Your task to perform on an android device: Go to ESPN.com Image 0: 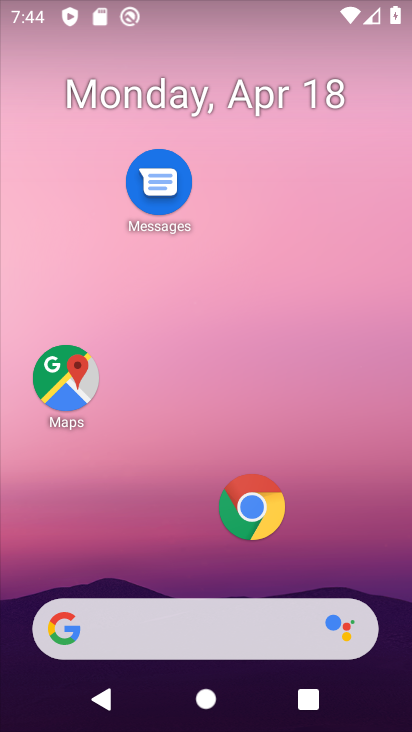
Step 0: click (241, 511)
Your task to perform on an android device: Go to ESPN.com Image 1: 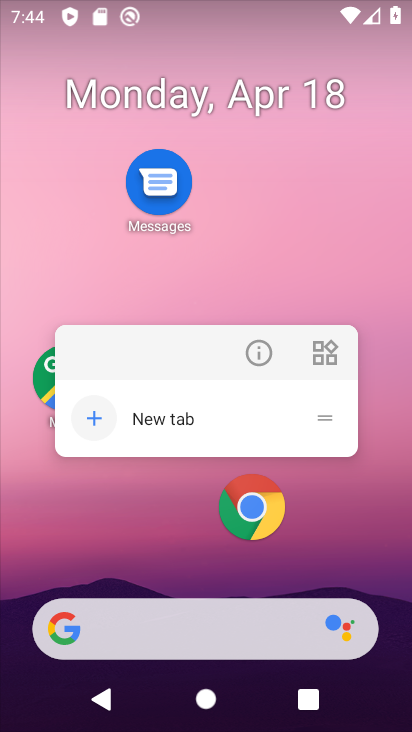
Step 1: click (252, 509)
Your task to perform on an android device: Go to ESPN.com Image 2: 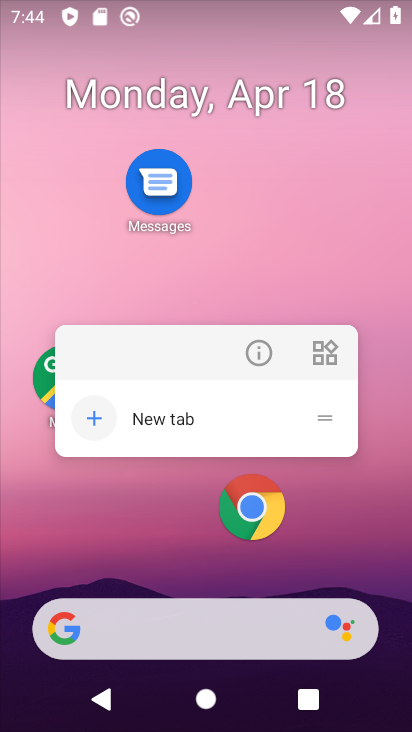
Step 2: click (255, 512)
Your task to perform on an android device: Go to ESPN.com Image 3: 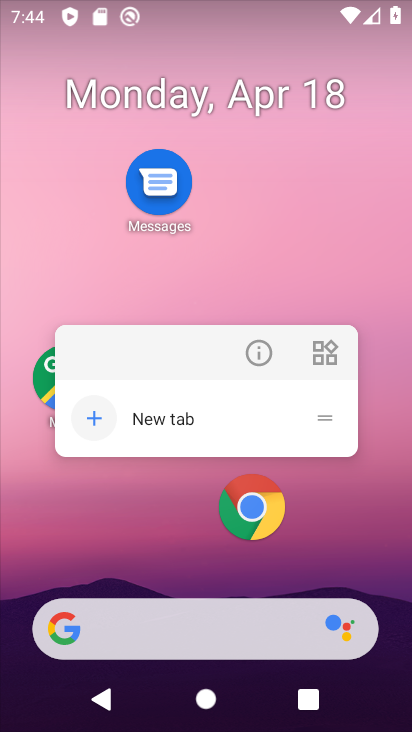
Step 3: click (259, 518)
Your task to perform on an android device: Go to ESPN.com Image 4: 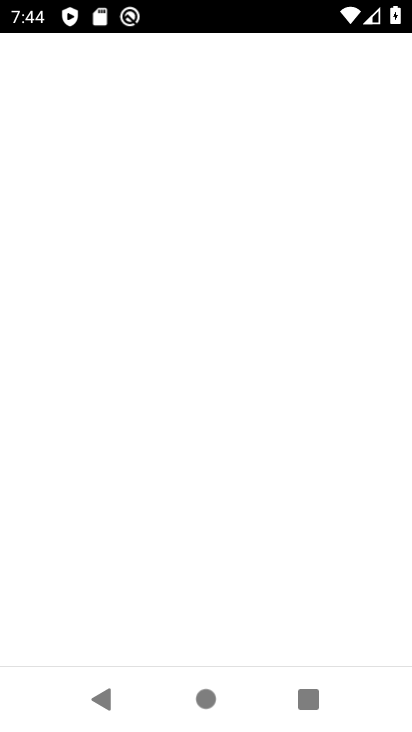
Step 4: click (259, 518)
Your task to perform on an android device: Go to ESPN.com Image 5: 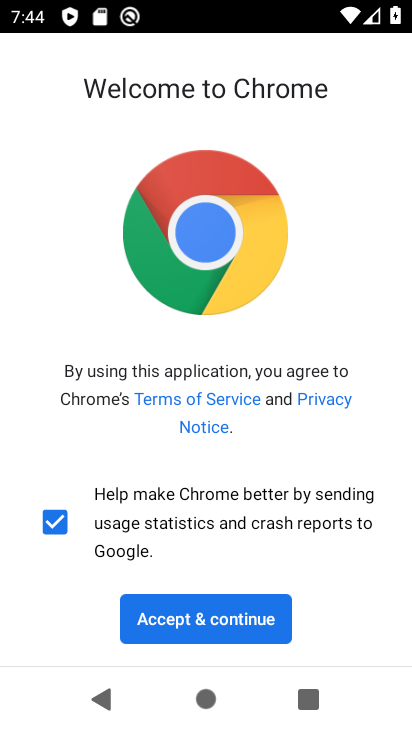
Step 5: click (223, 617)
Your task to perform on an android device: Go to ESPN.com Image 6: 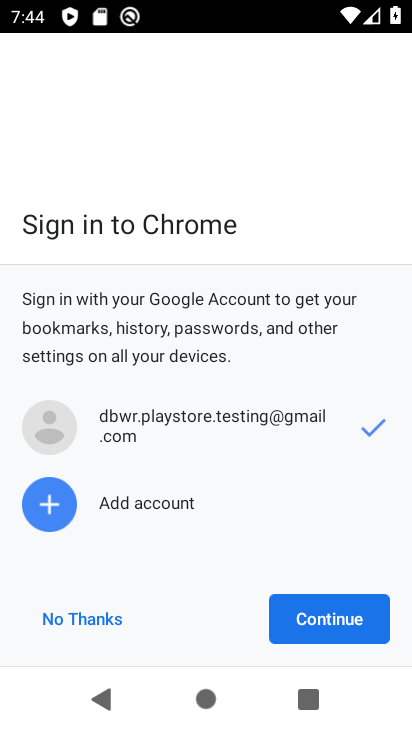
Step 6: click (288, 625)
Your task to perform on an android device: Go to ESPN.com Image 7: 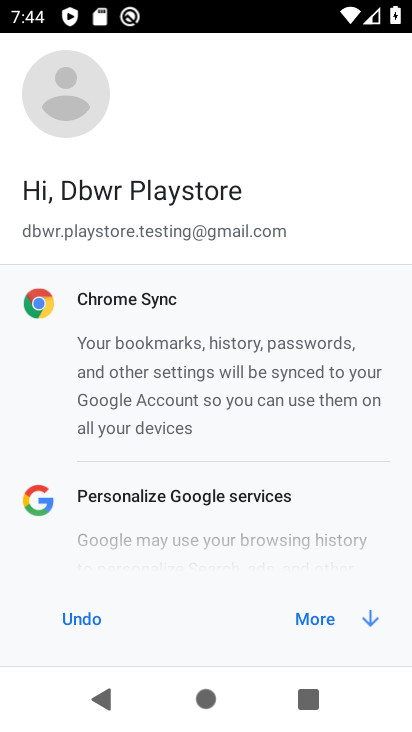
Step 7: click (325, 612)
Your task to perform on an android device: Go to ESPN.com Image 8: 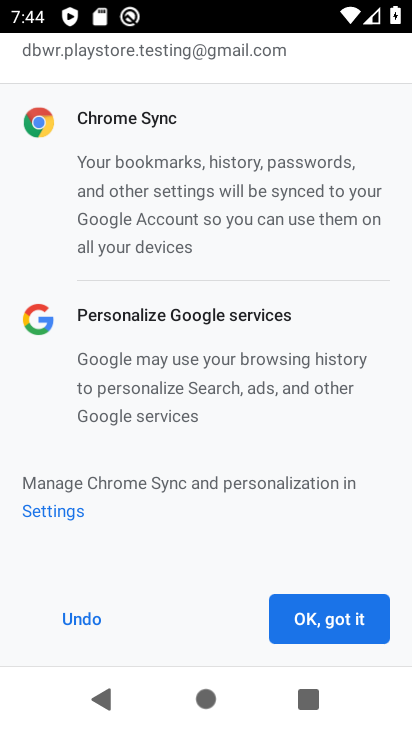
Step 8: click (329, 622)
Your task to perform on an android device: Go to ESPN.com Image 9: 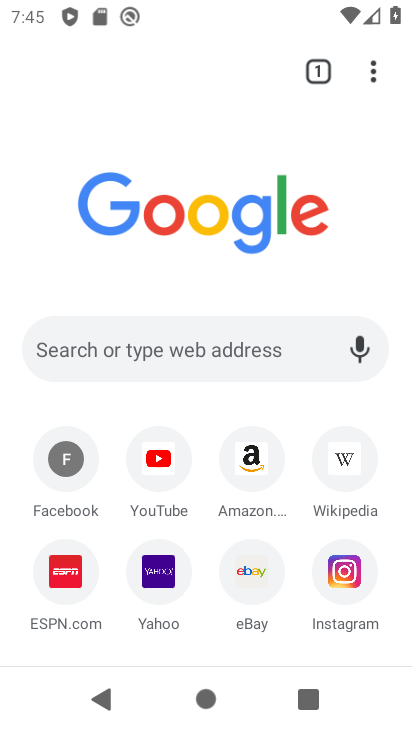
Step 9: click (176, 343)
Your task to perform on an android device: Go to ESPN.com Image 10: 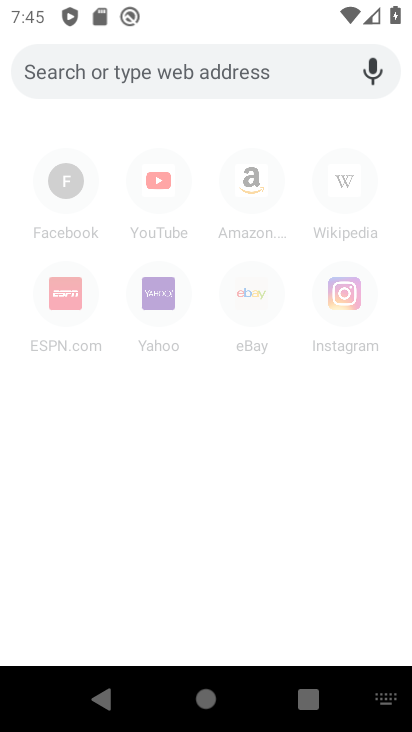
Step 10: type "ESPN.com"
Your task to perform on an android device: Go to ESPN.com Image 11: 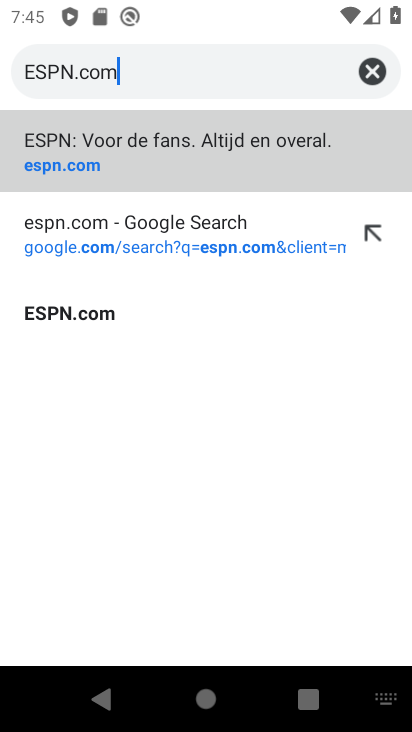
Step 11: click (92, 307)
Your task to perform on an android device: Go to ESPN.com Image 12: 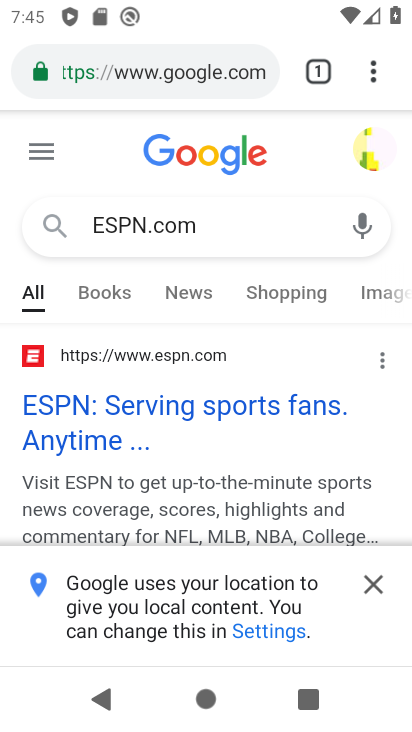
Step 12: click (365, 592)
Your task to perform on an android device: Go to ESPN.com Image 13: 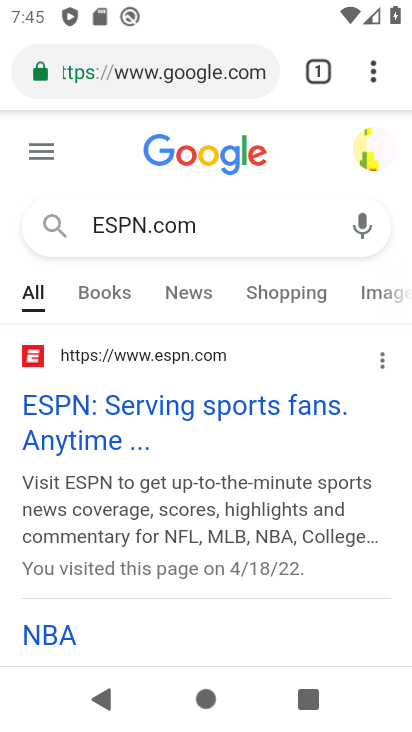
Step 13: click (231, 405)
Your task to perform on an android device: Go to ESPN.com Image 14: 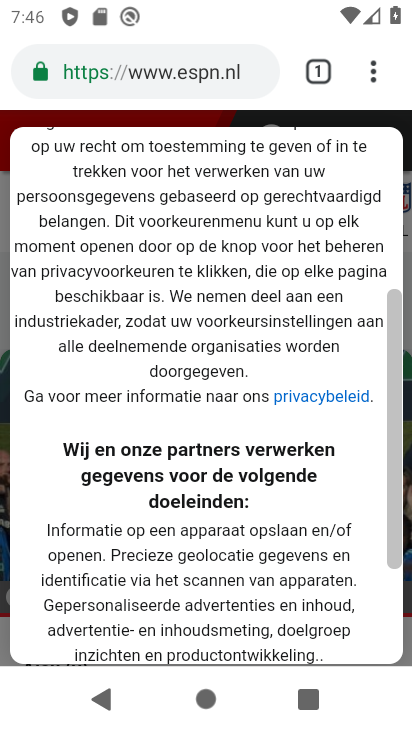
Step 14: task complete